Your task to perform on an android device: Open ESPN.com Image 0: 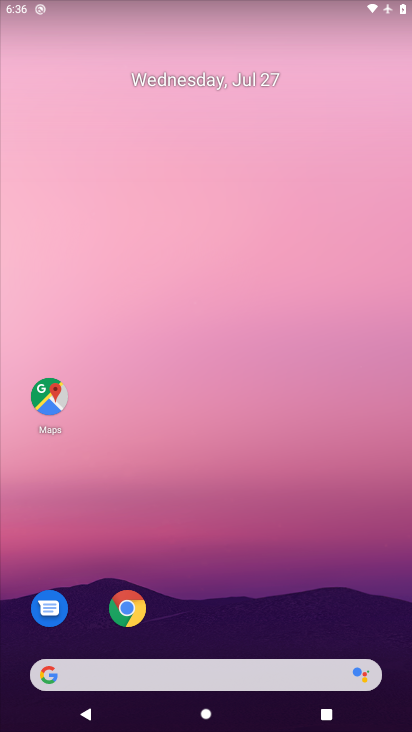
Step 0: press home button
Your task to perform on an android device: Open ESPN.com Image 1: 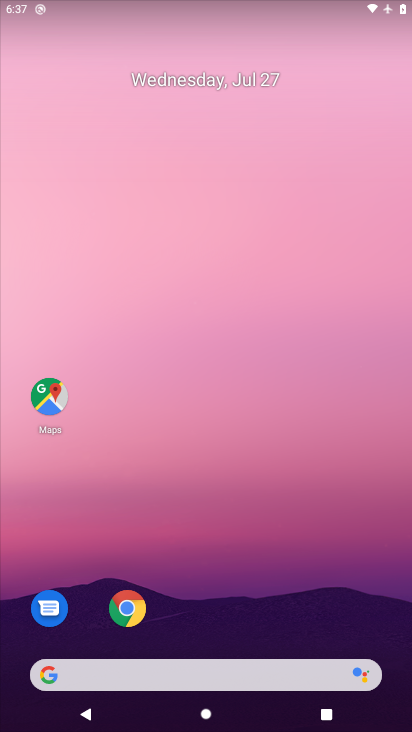
Step 1: click (41, 678)
Your task to perform on an android device: Open ESPN.com Image 2: 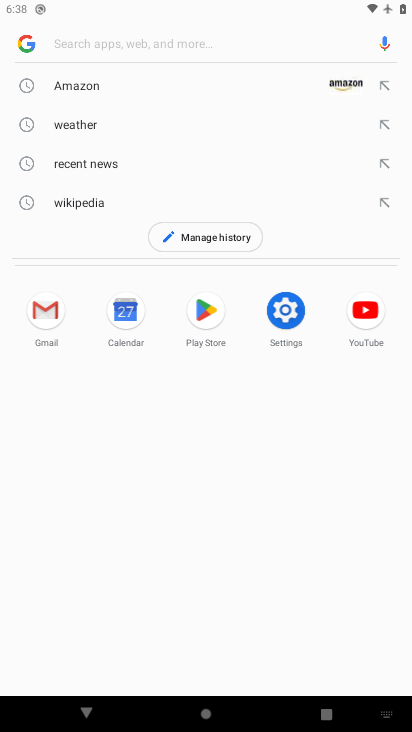
Step 2: press enter
Your task to perform on an android device: Open ESPN.com Image 3: 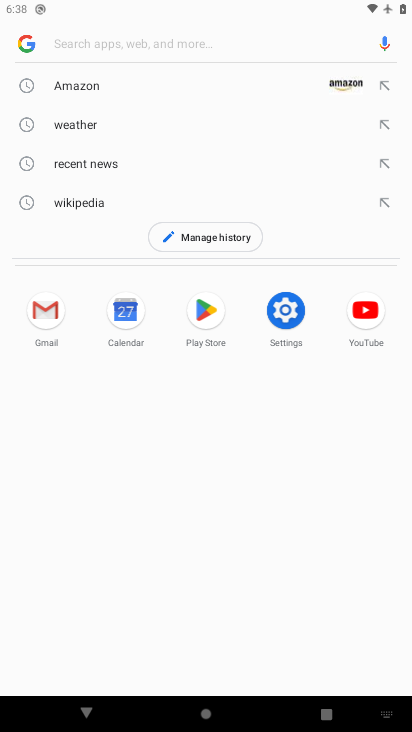
Step 3: type "ESPN.com"
Your task to perform on an android device: Open ESPN.com Image 4: 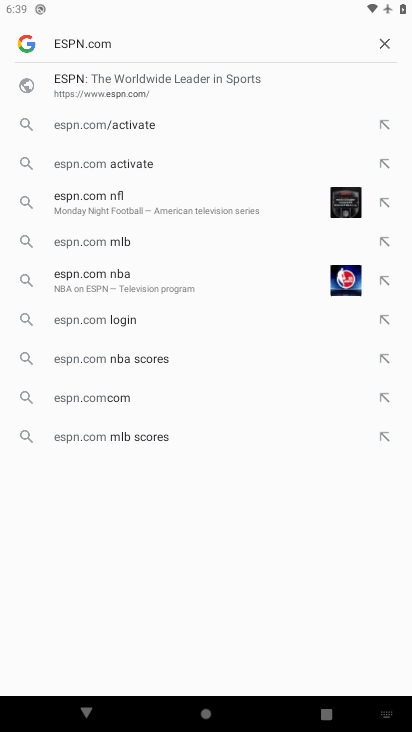
Step 4: click (124, 83)
Your task to perform on an android device: Open ESPN.com Image 5: 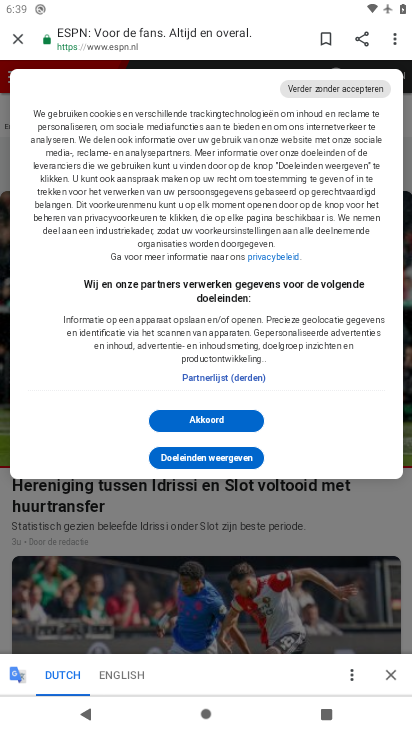
Step 5: click (203, 429)
Your task to perform on an android device: Open ESPN.com Image 6: 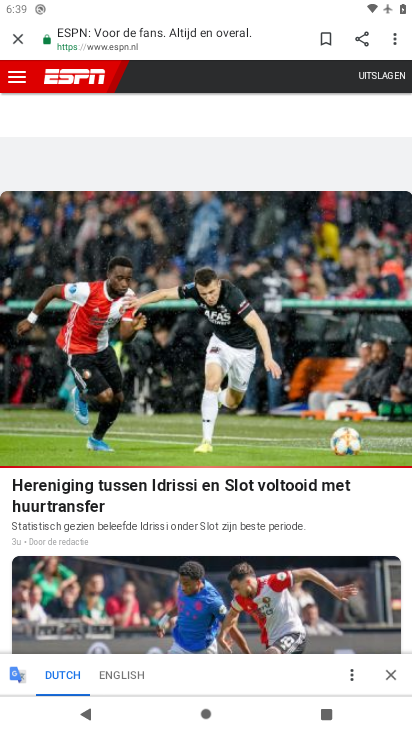
Step 6: task complete